Your task to perform on an android device: open device folders in google photos Image 0: 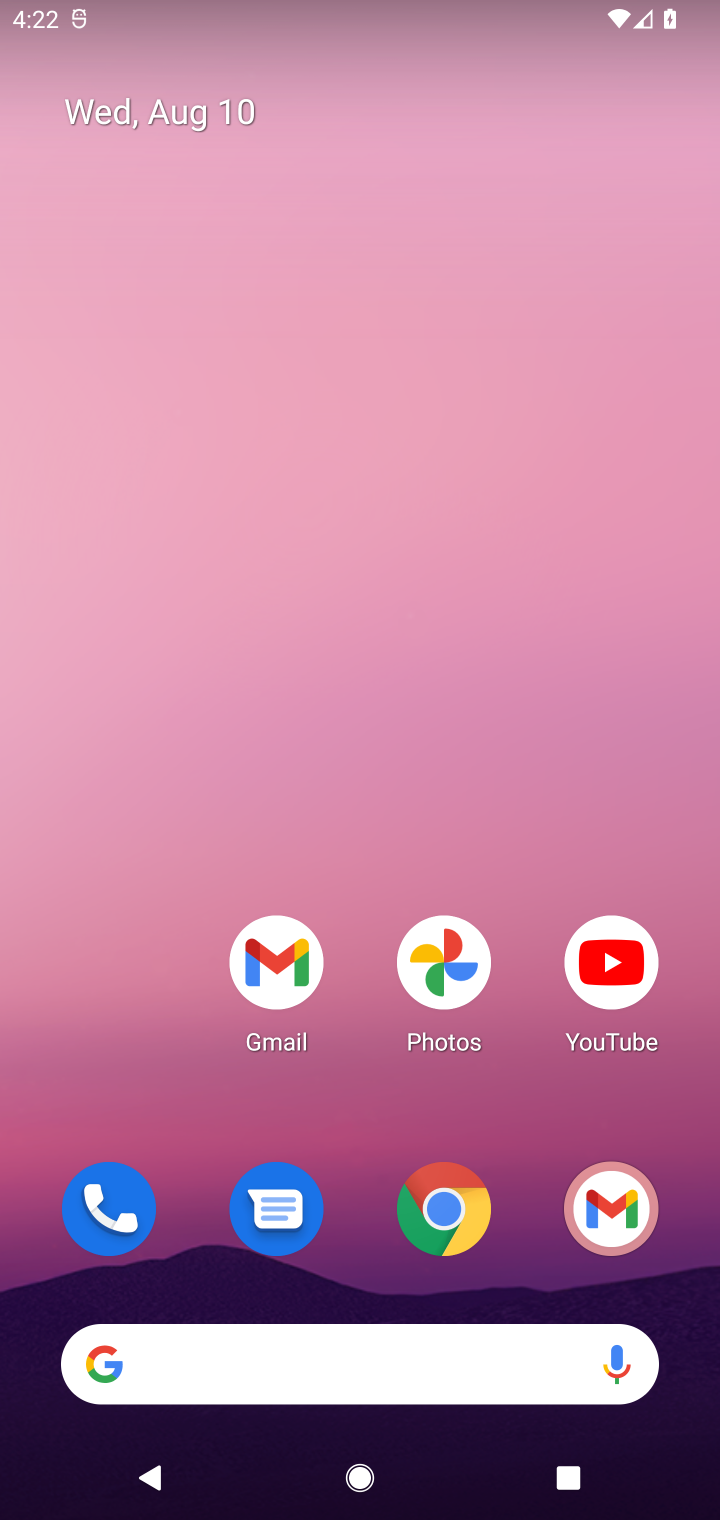
Step 0: click (443, 919)
Your task to perform on an android device: open device folders in google photos Image 1: 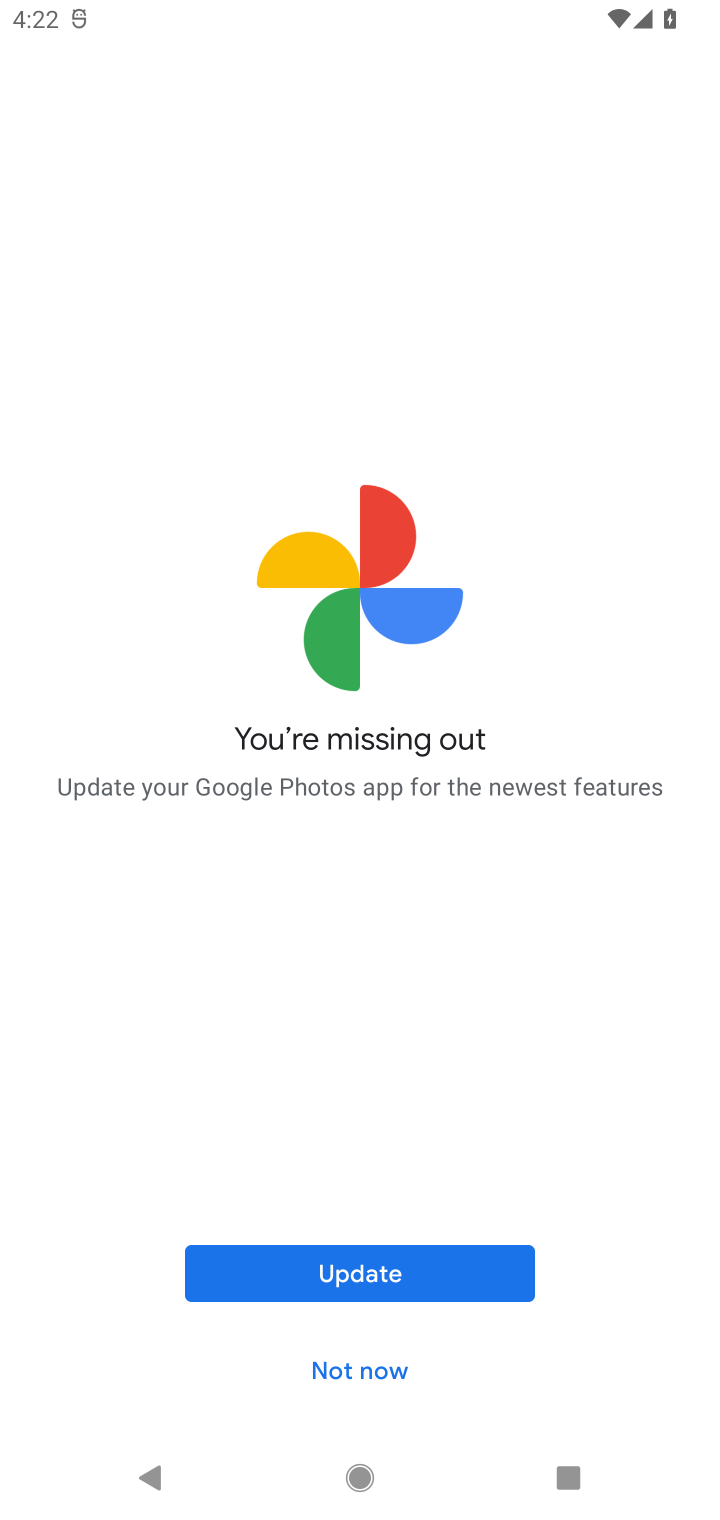
Step 1: click (318, 1366)
Your task to perform on an android device: open device folders in google photos Image 2: 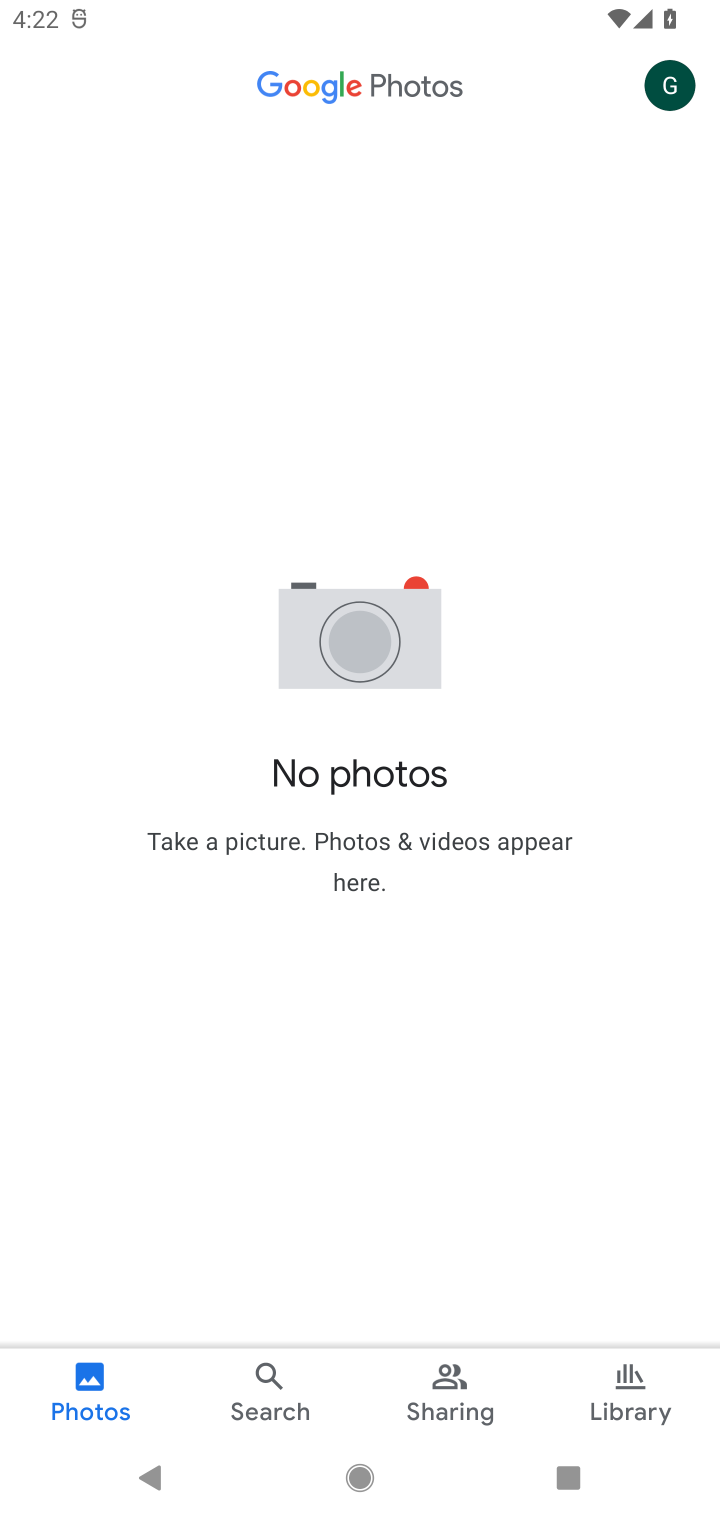
Step 2: click (667, 97)
Your task to perform on an android device: open device folders in google photos Image 3: 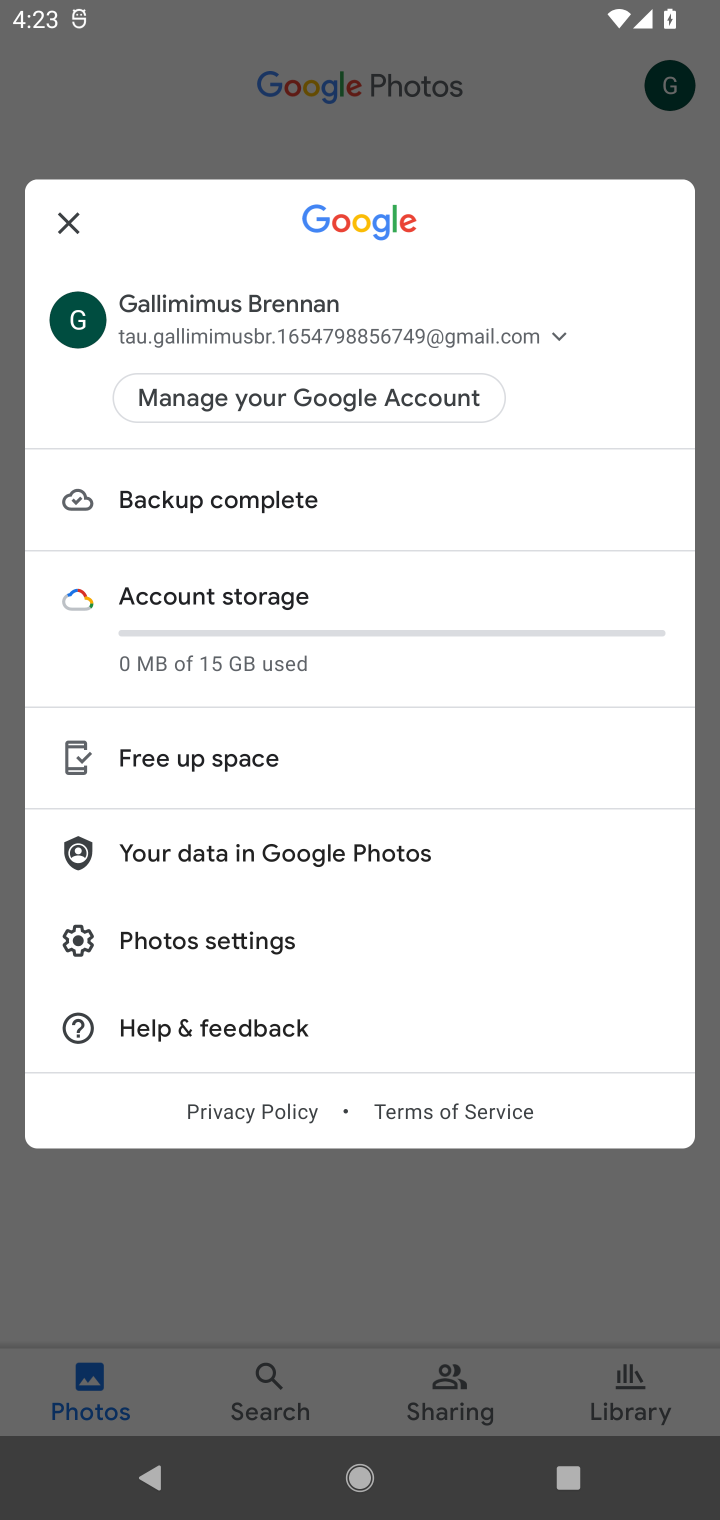
Step 3: task complete